Your task to perform on an android device: Open wifi settings Image 0: 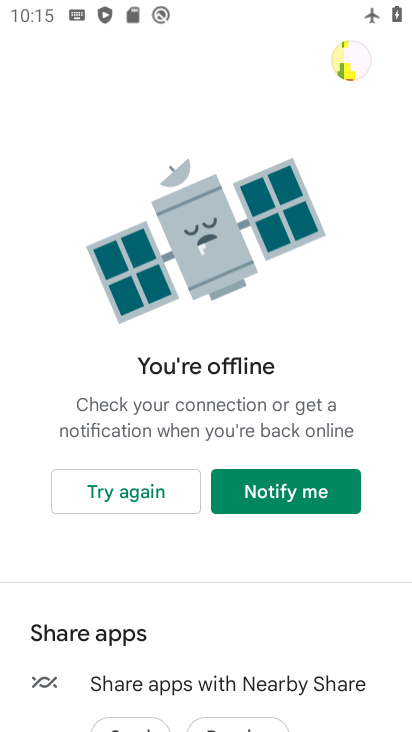
Step 0: press back button
Your task to perform on an android device: Open wifi settings Image 1: 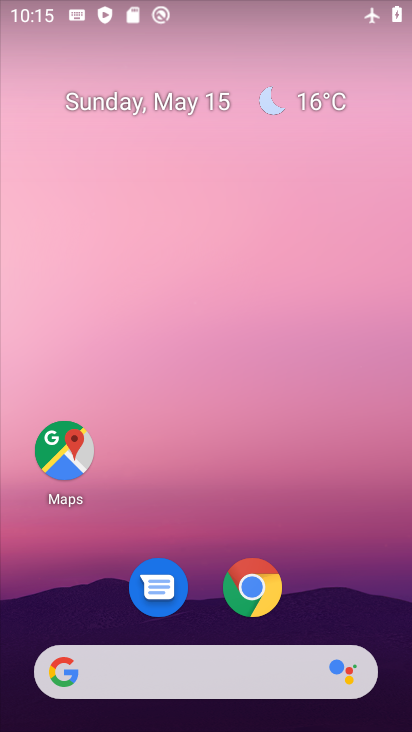
Step 1: drag from (303, 489) to (213, 2)
Your task to perform on an android device: Open wifi settings Image 2: 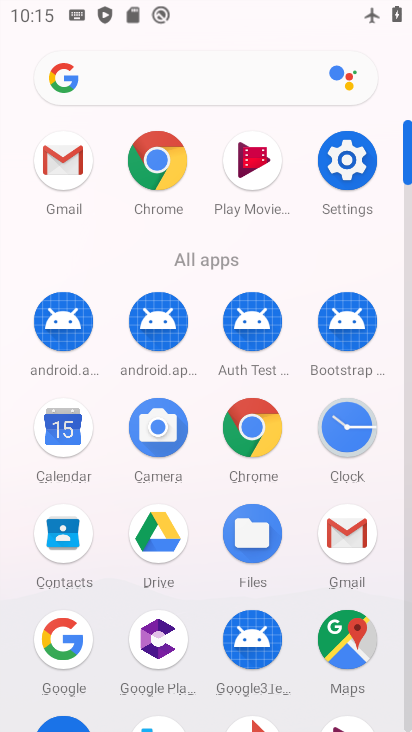
Step 2: click (349, 158)
Your task to perform on an android device: Open wifi settings Image 3: 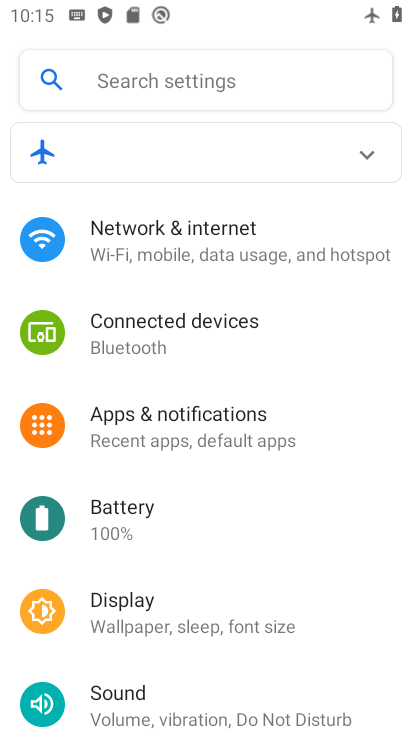
Step 3: click (212, 237)
Your task to perform on an android device: Open wifi settings Image 4: 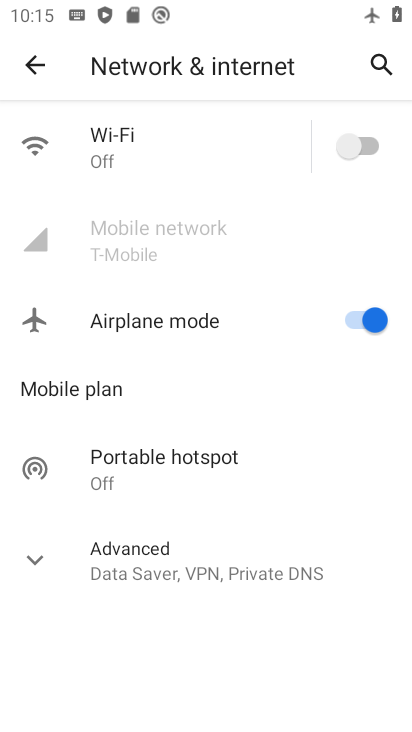
Step 4: click (38, 557)
Your task to perform on an android device: Open wifi settings Image 5: 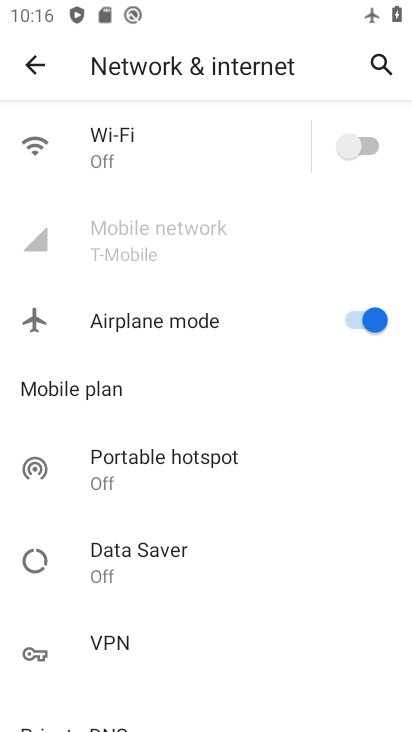
Step 5: task complete